Your task to perform on an android device: toggle location history Image 0: 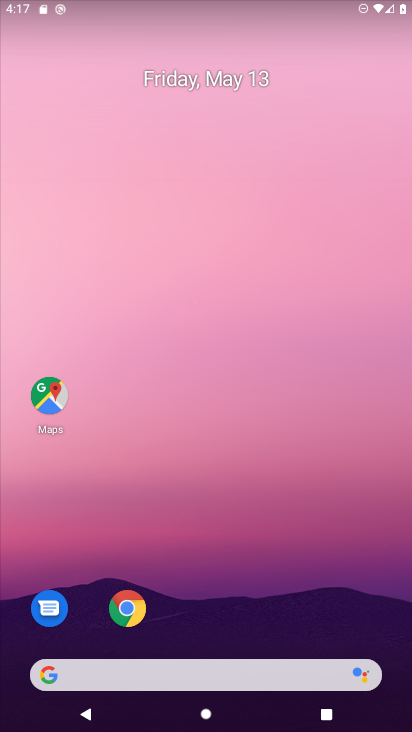
Step 0: drag from (273, 606) to (234, 62)
Your task to perform on an android device: toggle location history Image 1: 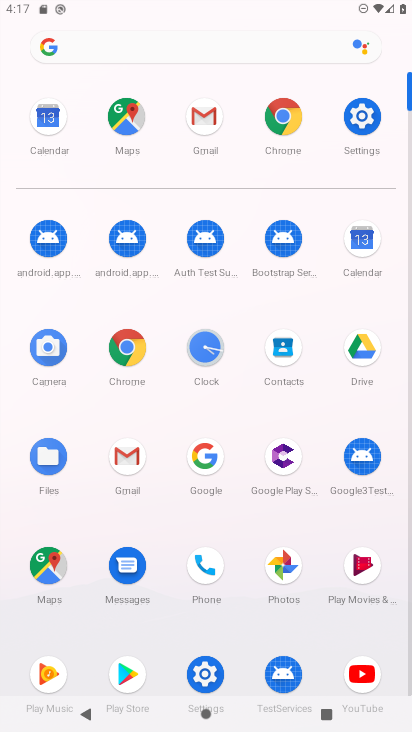
Step 1: click (358, 127)
Your task to perform on an android device: toggle location history Image 2: 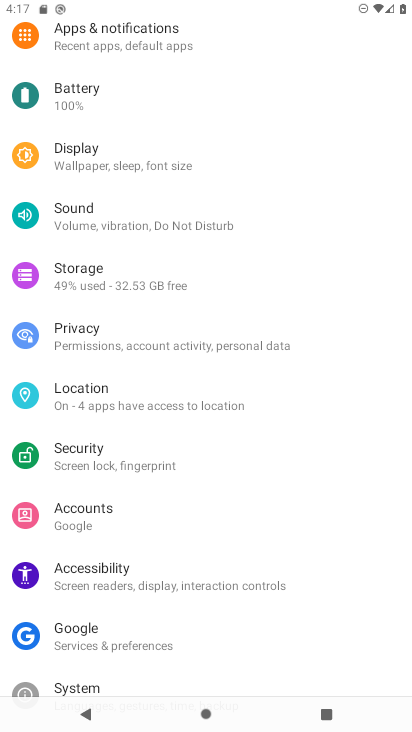
Step 2: click (139, 405)
Your task to perform on an android device: toggle location history Image 3: 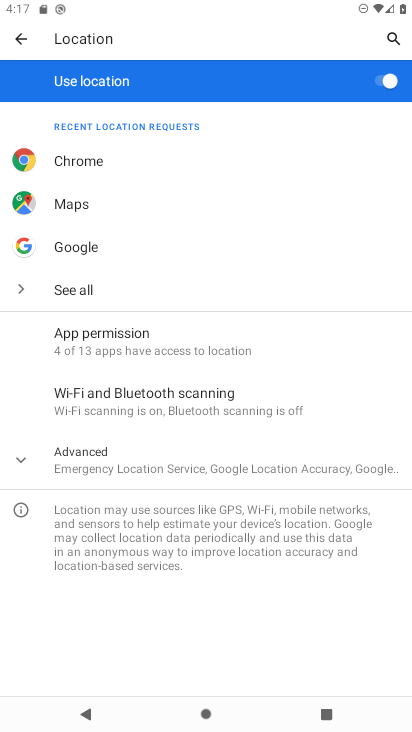
Step 3: click (115, 457)
Your task to perform on an android device: toggle location history Image 4: 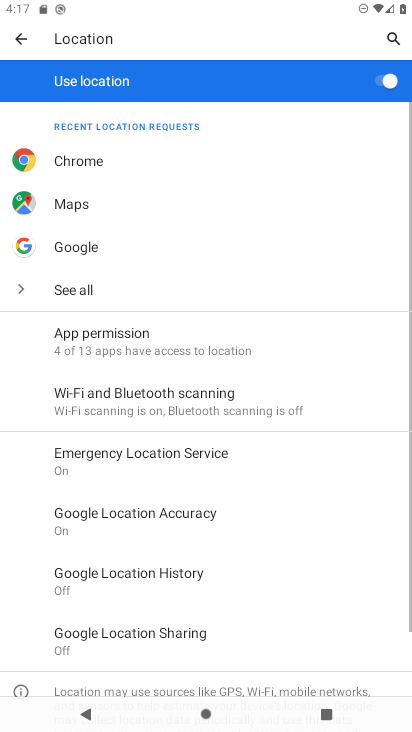
Step 4: drag from (227, 614) to (227, 335)
Your task to perform on an android device: toggle location history Image 5: 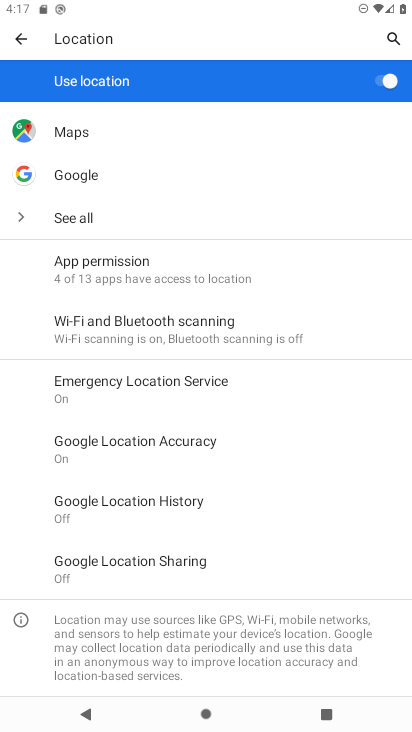
Step 5: click (152, 498)
Your task to perform on an android device: toggle location history Image 6: 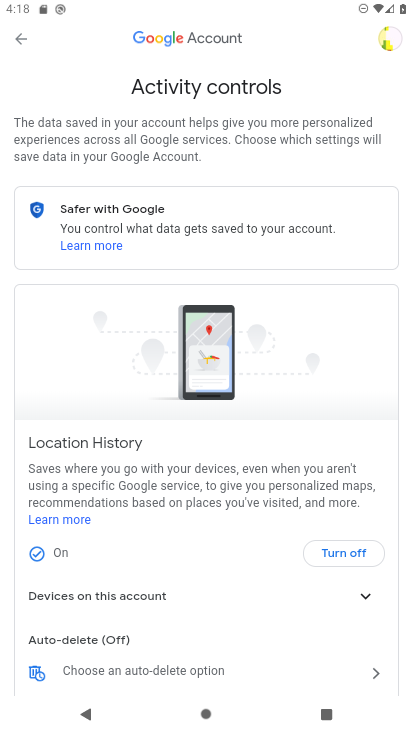
Step 6: click (335, 554)
Your task to perform on an android device: toggle location history Image 7: 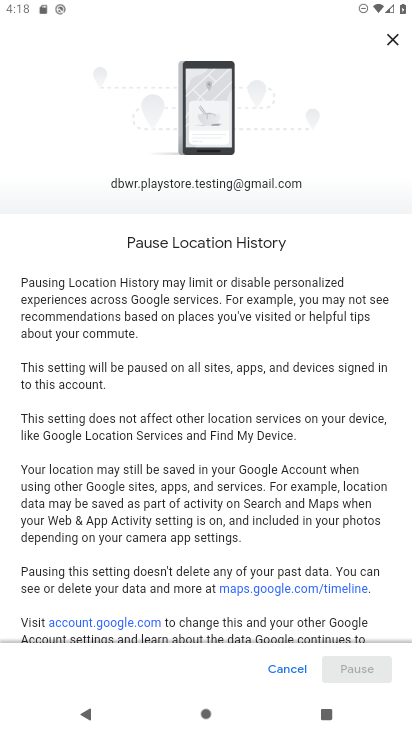
Step 7: drag from (312, 626) to (278, 60)
Your task to perform on an android device: toggle location history Image 8: 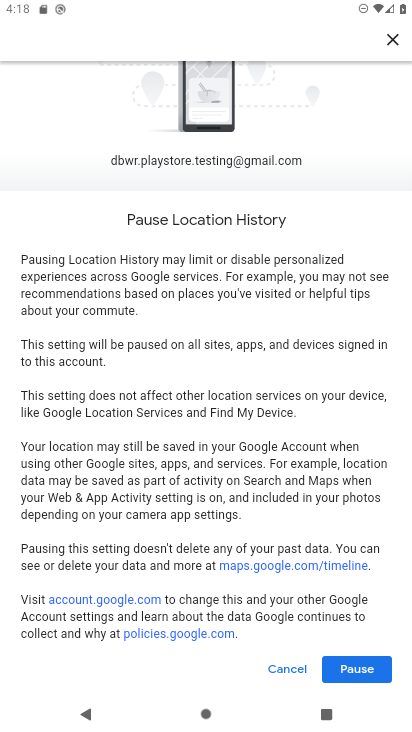
Step 8: click (345, 666)
Your task to perform on an android device: toggle location history Image 9: 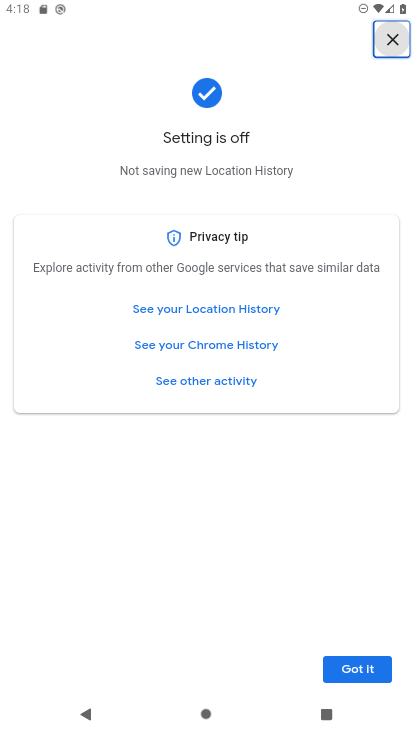
Step 9: task complete